Your task to perform on an android device: snooze an email in the gmail app Image 0: 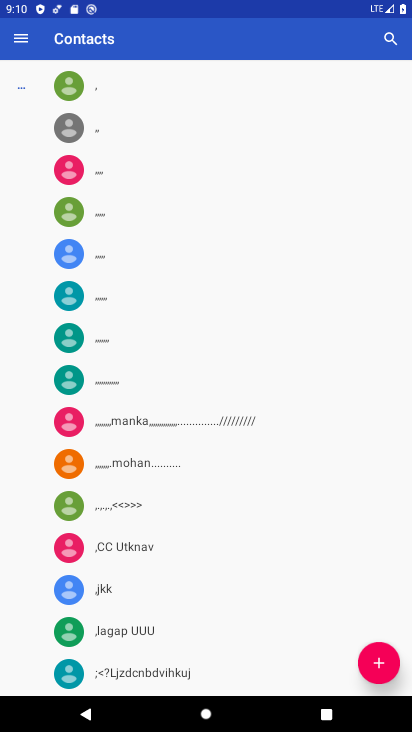
Step 0: press home button
Your task to perform on an android device: snooze an email in the gmail app Image 1: 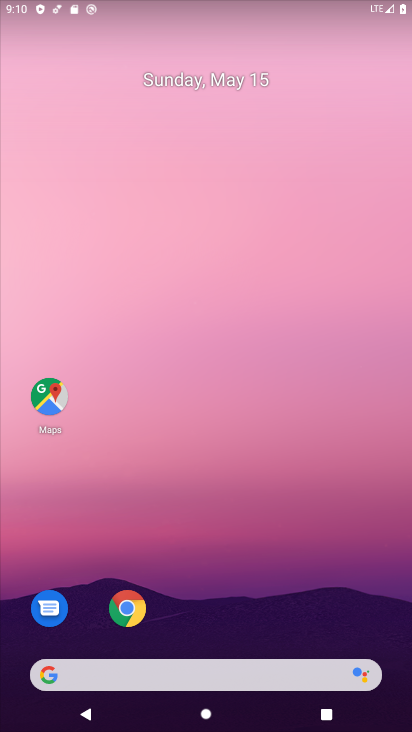
Step 1: drag from (331, 523) to (88, 11)
Your task to perform on an android device: snooze an email in the gmail app Image 2: 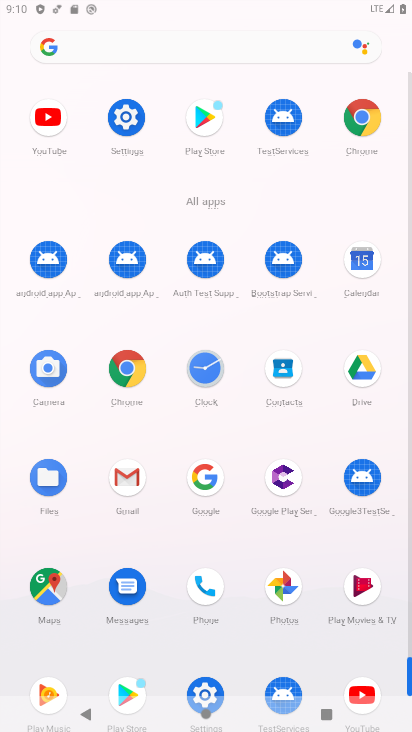
Step 2: drag from (307, 155) to (341, 23)
Your task to perform on an android device: snooze an email in the gmail app Image 3: 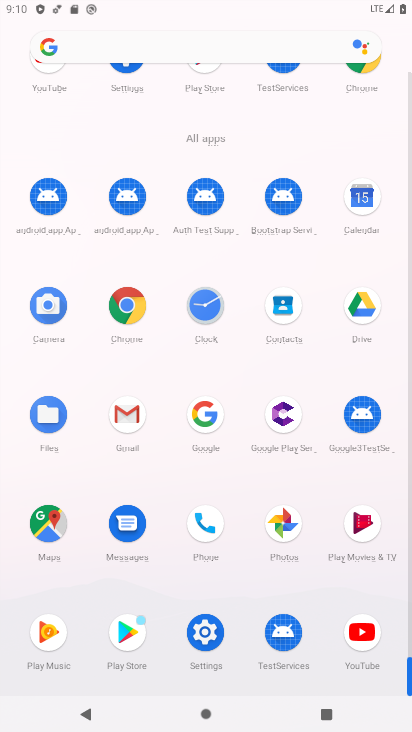
Step 3: click (135, 407)
Your task to perform on an android device: snooze an email in the gmail app Image 4: 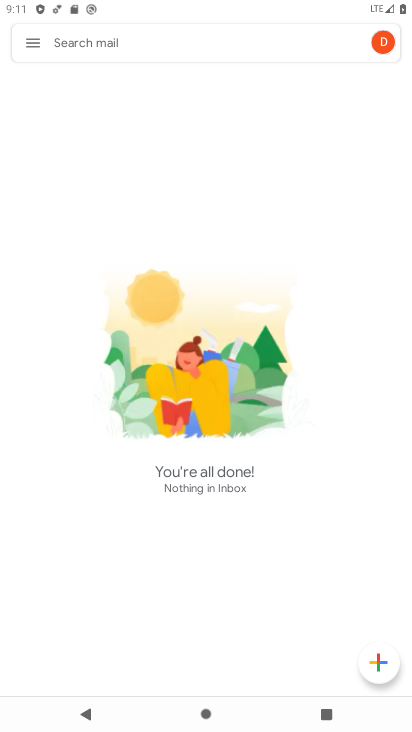
Step 4: click (41, 46)
Your task to perform on an android device: snooze an email in the gmail app Image 5: 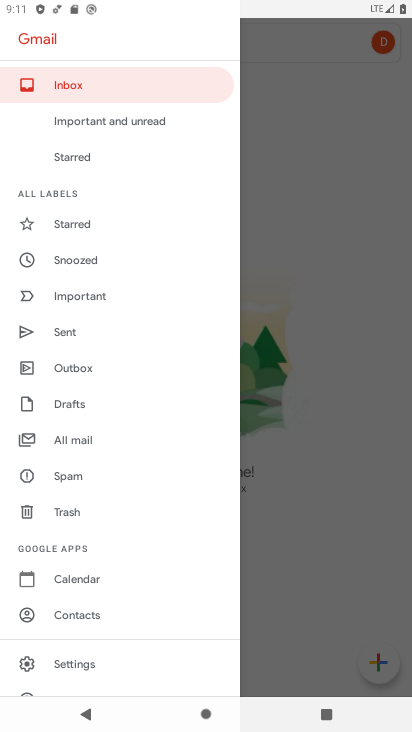
Step 5: click (307, 441)
Your task to perform on an android device: snooze an email in the gmail app Image 6: 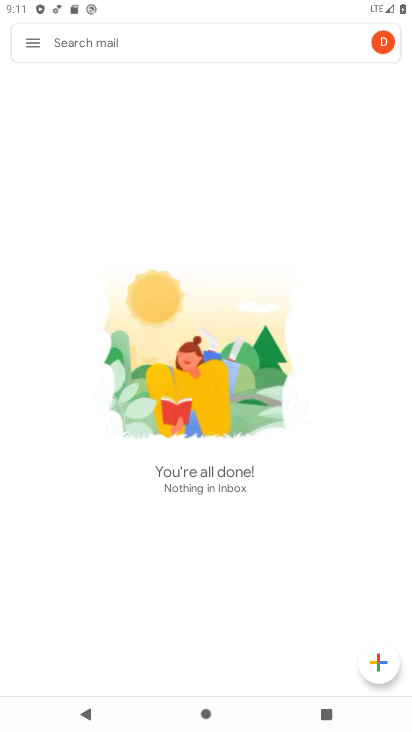
Step 6: task complete